Your task to perform on an android device: What is the news today? Image 0: 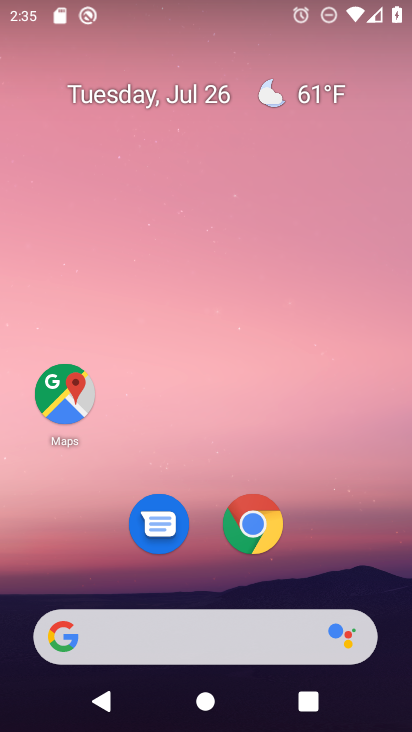
Step 0: press home button
Your task to perform on an android device: What is the news today? Image 1: 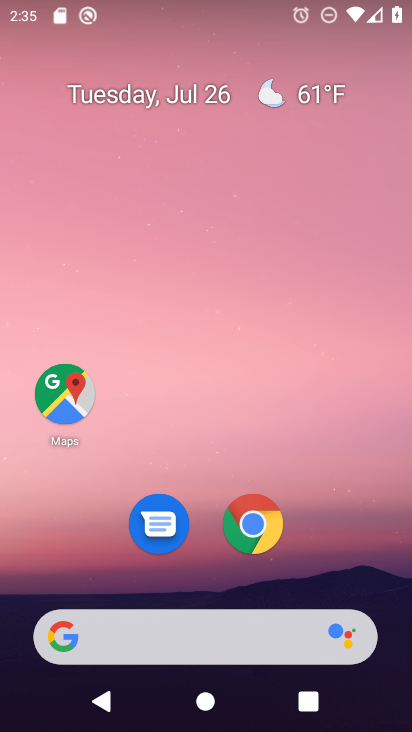
Step 1: click (137, 627)
Your task to perform on an android device: What is the news today? Image 2: 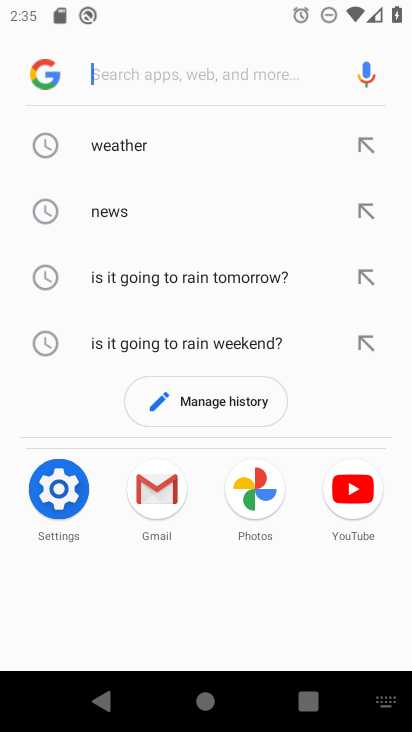
Step 2: click (102, 212)
Your task to perform on an android device: What is the news today? Image 3: 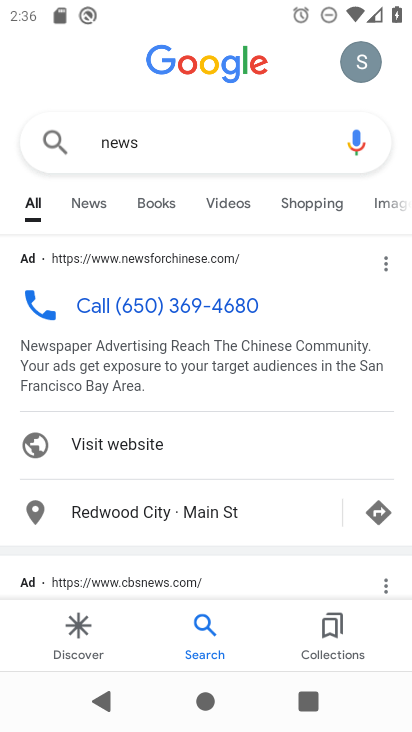
Step 3: click (95, 206)
Your task to perform on an android device: What is the news today? Image 4: 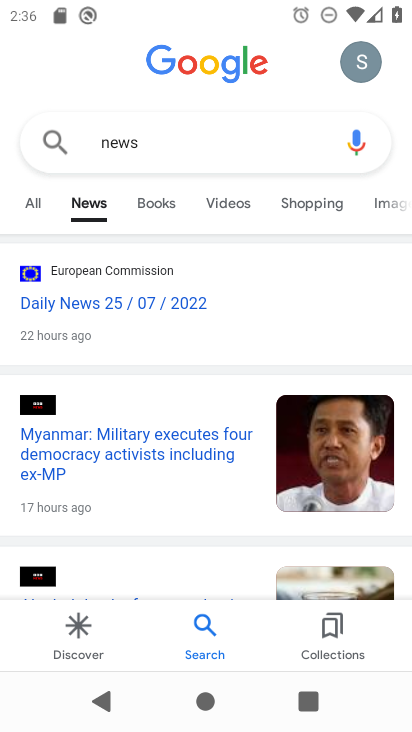
Step 4: task complete